Your task to perform on an android device: Search for vegetarian restaurants on Maps Image 0: 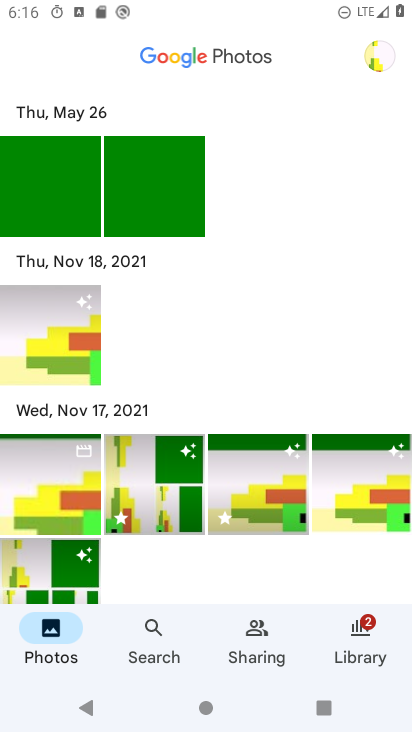
Step 0: press home button
Your task to perform on an android device: Search for vegetarian restaurants on Maps Image 1: 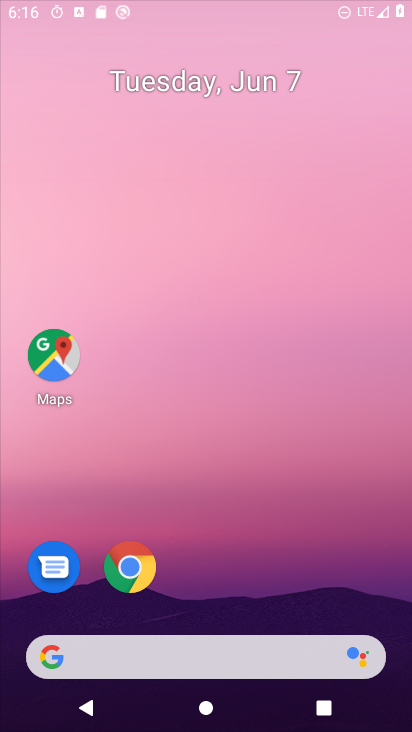
Step 1: drag from (233, 654) to (304, 147)
Your task to perform on an android device: Search for vegetarian restaurants on Maps Image 2: 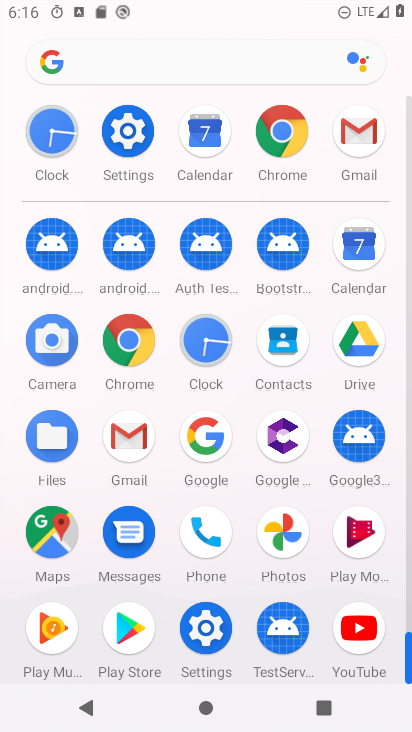
Step 2: click (31, 526)
Your task to perform on an android device: Search for vegetarian restaurants on Maps Image 3: 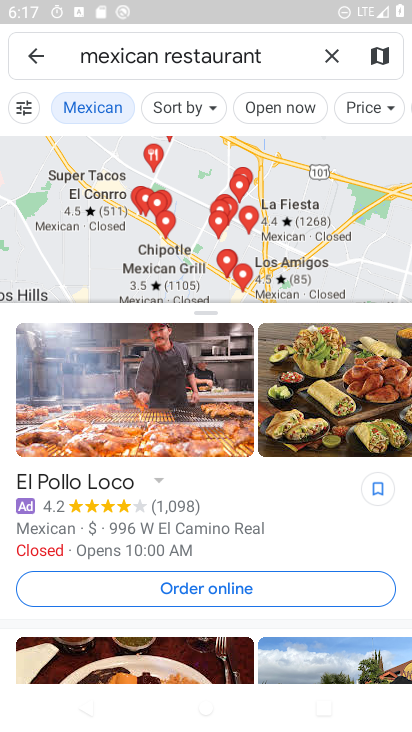
Step 3: press back button
Your task to perform on an android device: Search for vegetarian restaurants on Maps Image 4: 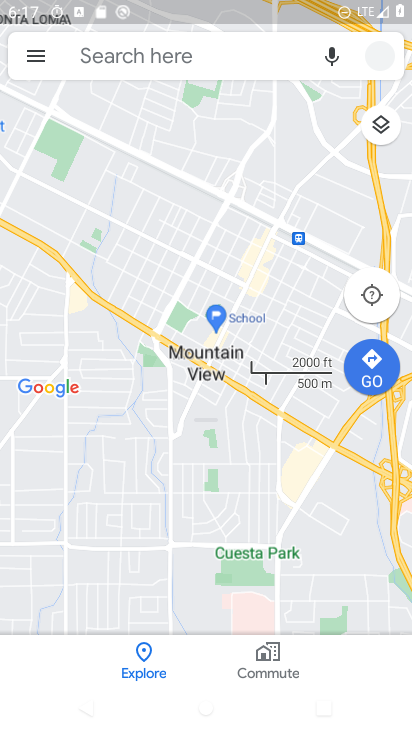
Step 4: click (167, 60)
Your task to perform on an android device: Search for vegetarian restaurants on Maps Image 5: 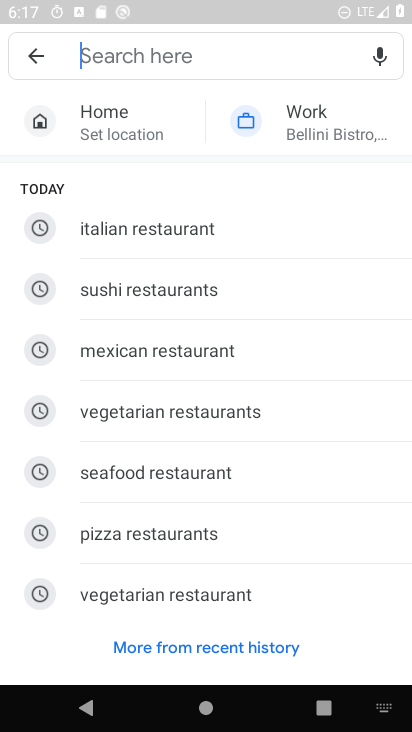
Step 5: click (168, 60)
Your task to perform on an android device: Search for vegetarian restaurants on Maps Image 6: 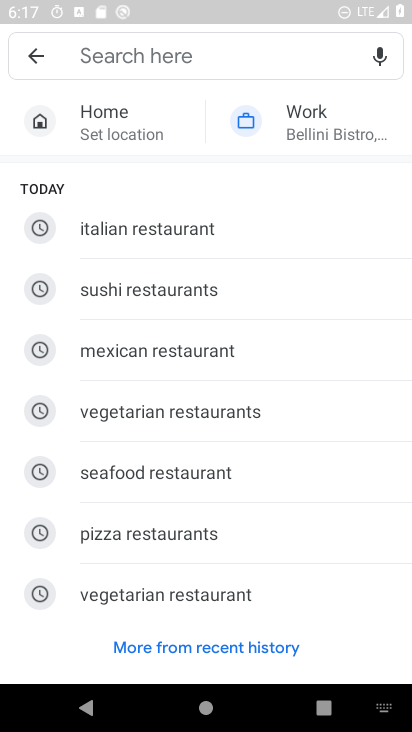
Step 6: click (168, 60)
Your task to perform on an android device: Search for vegetarian restaurants on Maps Image 7: 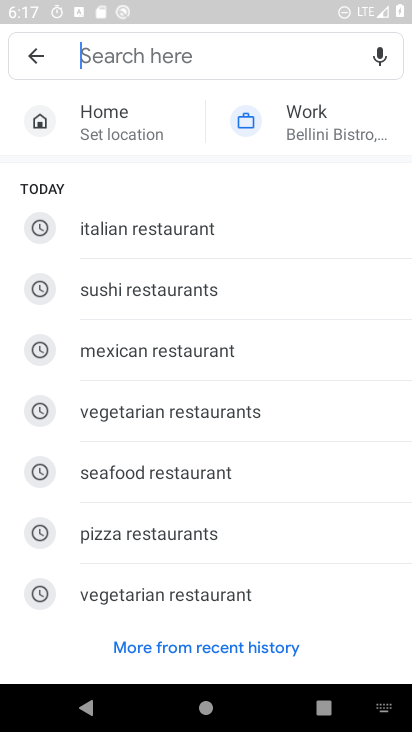
Step 7: click (196, 413)
Your task to perform on an android device: Search for vegetarian restaurants on Maps Image 8: 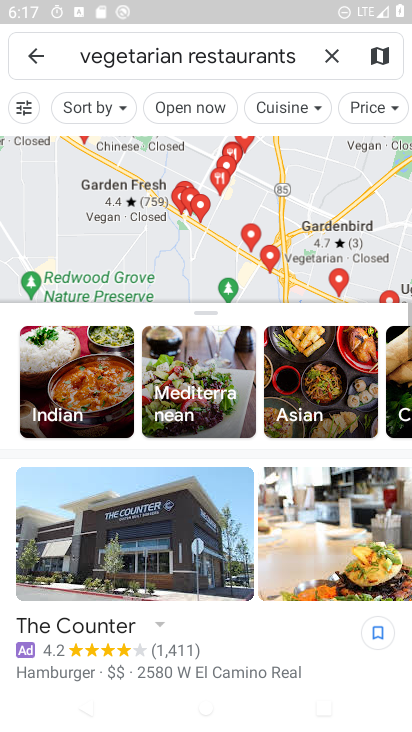
Step 8: task complete